Your task to perform on an android device: Go to Android settings Image 0: 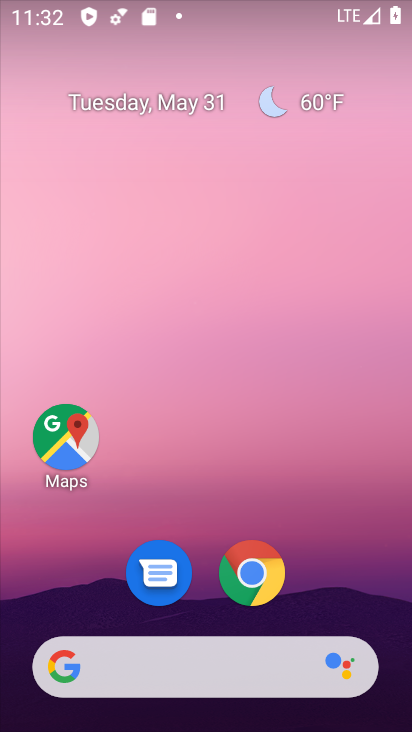
Step 0: drag from (218, 625) to (227, 133)
Your task to perform on an android device: Go to Android settings Image 1: 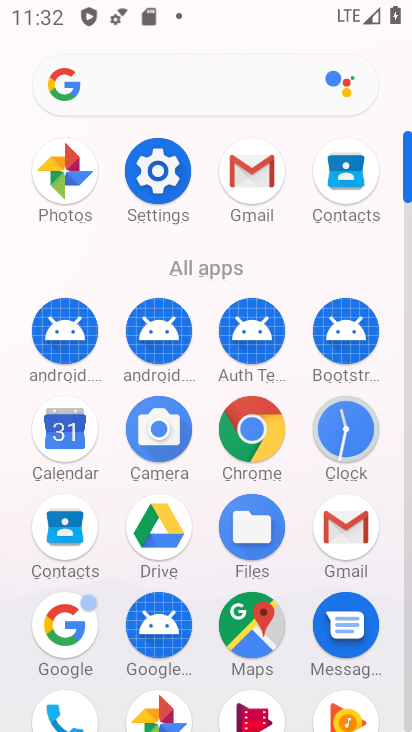
Step 1: click (166, 159)
Your task to perform on an android device: Go to Android settings Image 2: 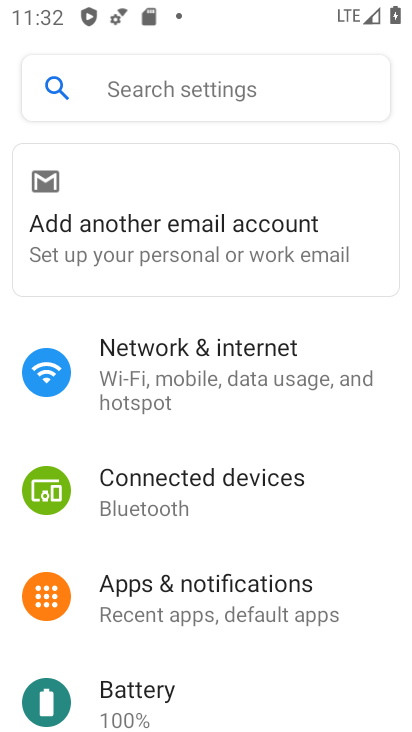
Step 2: task complete